Your task to perform on an android device: search for starred emails in the gmail app Image 0: 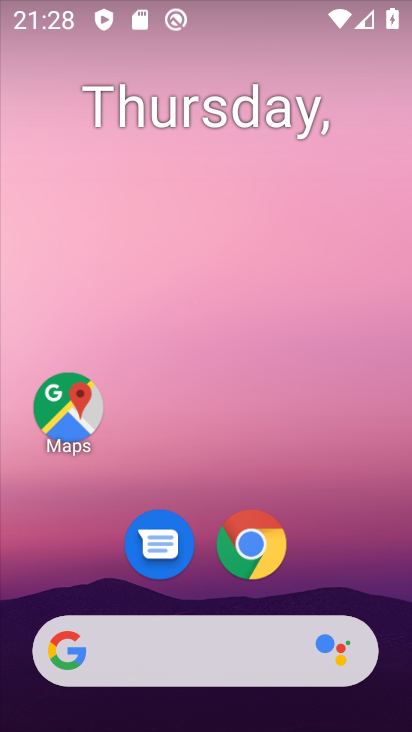
Step 0: drag from (235, 648) to (310, 156)
Your task to perform on an android device: search for starred emails in the gmail app Image 1: 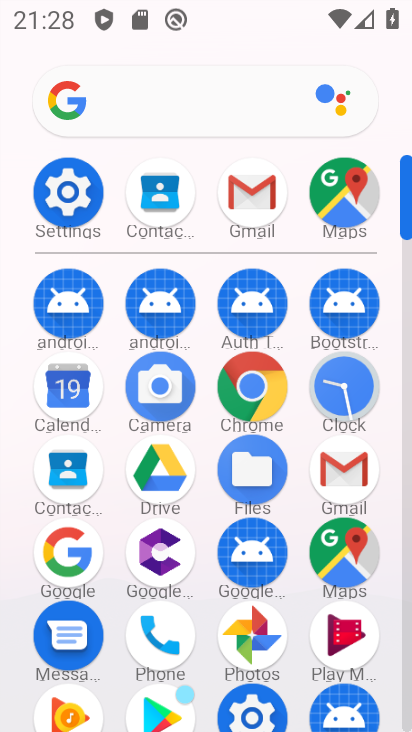
Step 1: click (260, 200)
Your task to perform on an android device: search for starred emails in the gmail app Image 2: 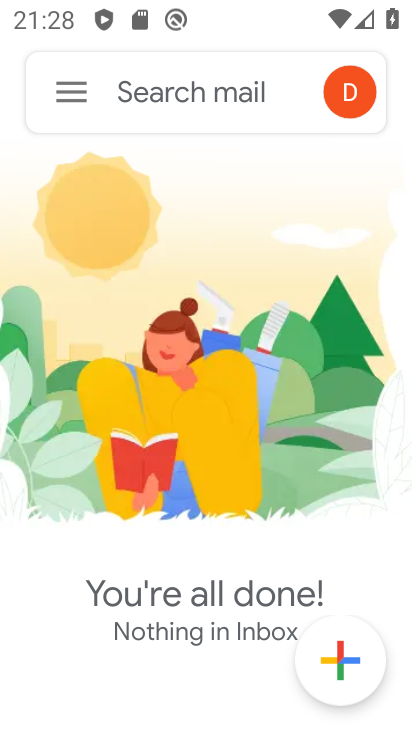
Step 2: click (79, 77)
Your task to perform on an android device: search for starred emails in the gmail app Image 3: 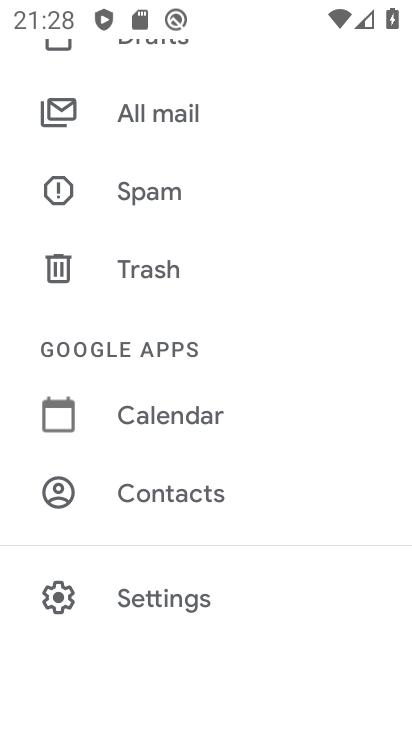
Step 3: drag from (261, 187) to (266, 596)
Your task to perform on an android device: search for starred emails in the gmail app Image 4: 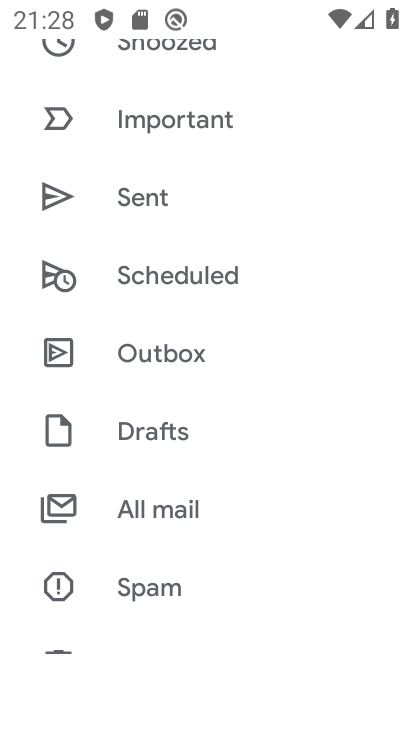
Step 4: drag from (302, 203) to (275, 526)
Your task to perform on an android device: search for starred emails in the gmail app Image 5: 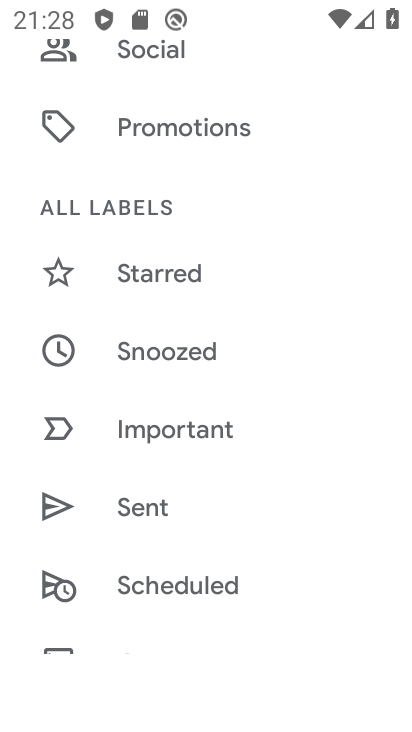
Step 5: click (216, 277)
Your task to perform on an android device: search for starred emails in the gmail app Image 6: 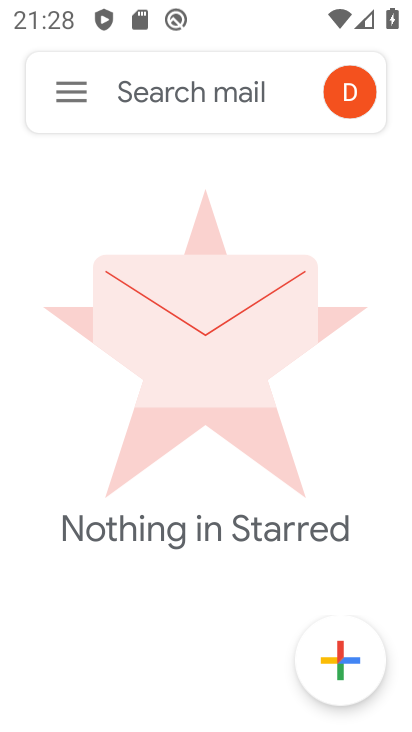
Step 6: task complete